Your task to perform on an android device: Open display settings Image 0: 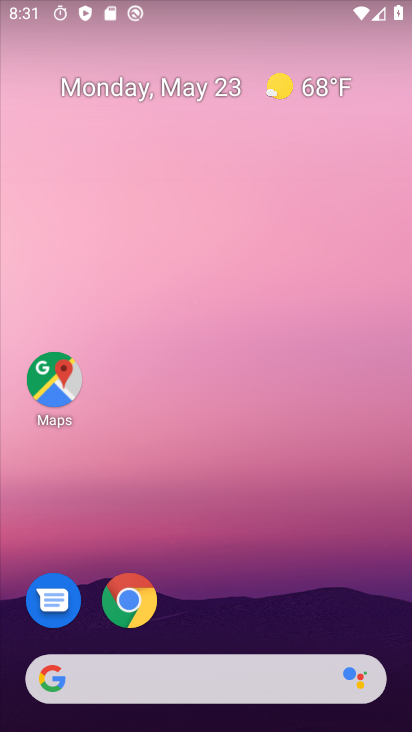
Step 0: press home button
Your task to perform on an android device: Open display settings Image 1: 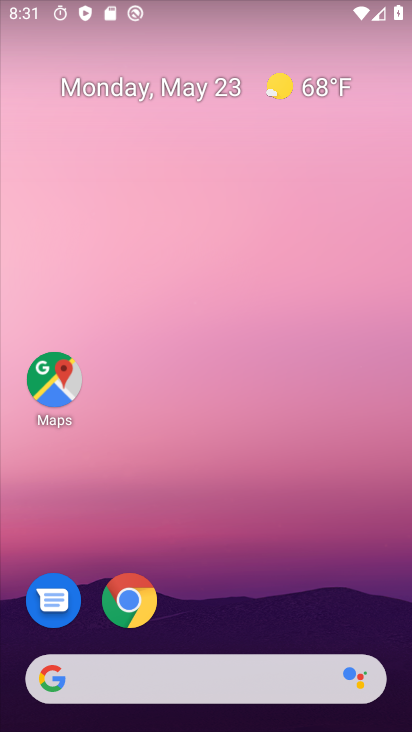
Step 1: drag from (7, 675) to (335, 152)
Your task to perform on an android device: Open display settings Image 2: 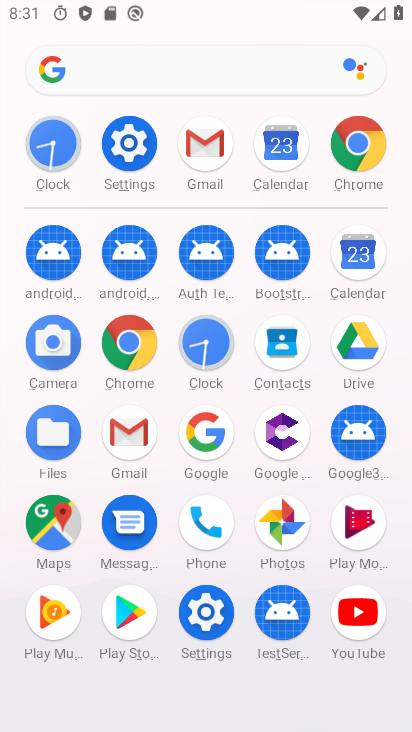
Step 2: click (119, 137)
Your task to perform on an android device: Open display settings Image 3: 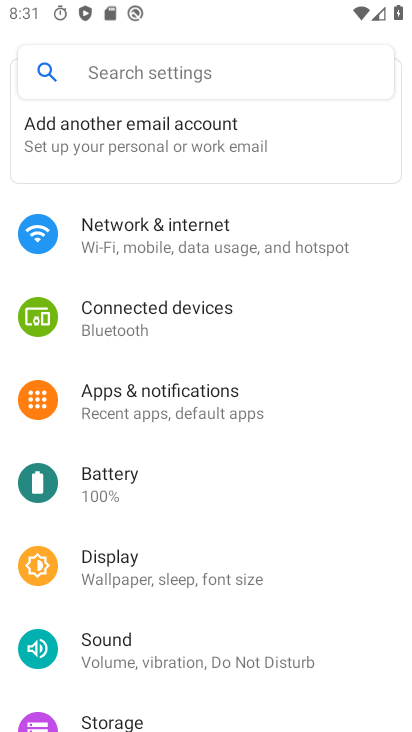
Step 3: drag from (25, 572) to (225, 224)
Your task to perform on an android device: Open display settings Image 4: 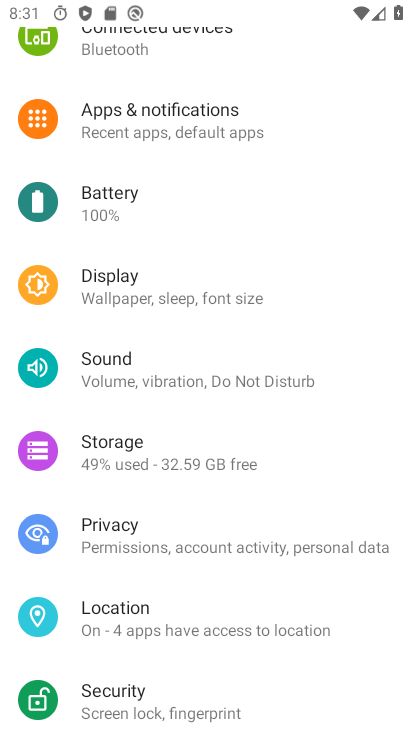
Step 4: click (174, 288)
Your task to perform on an android device: Open display settings Image 5: 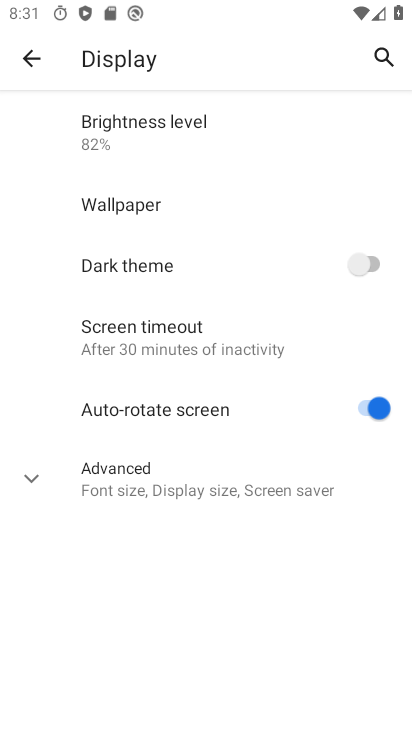
Step 5: task complete